Your task to perform on an android device: toggle show notifications on the lock screen Image 0: 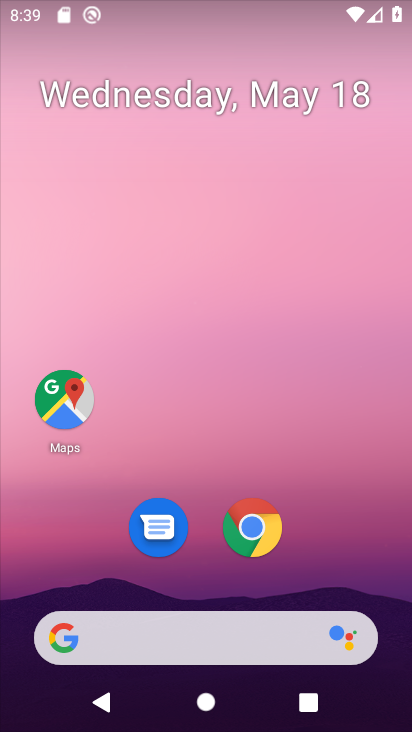
Step 0: drag from (291, 583) to (294, 6)
Your task to perform on an android device: toggle show notifications on the lock screen Image 1: 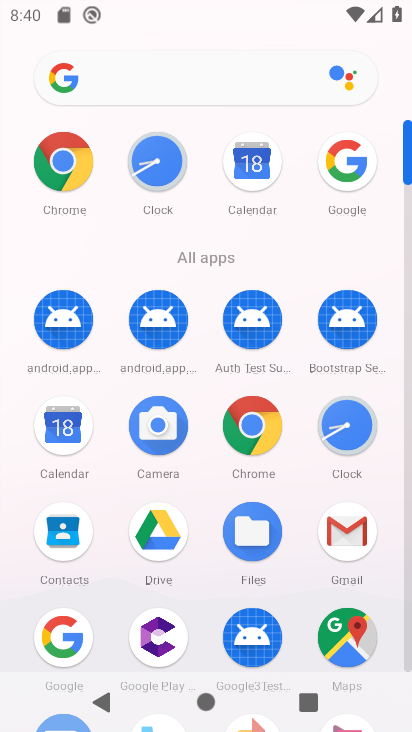
Step 1: drag from (140, 586) to (339, 0)
Your task to perform on an android device: toggle show notifications on the lock screen Image 2: 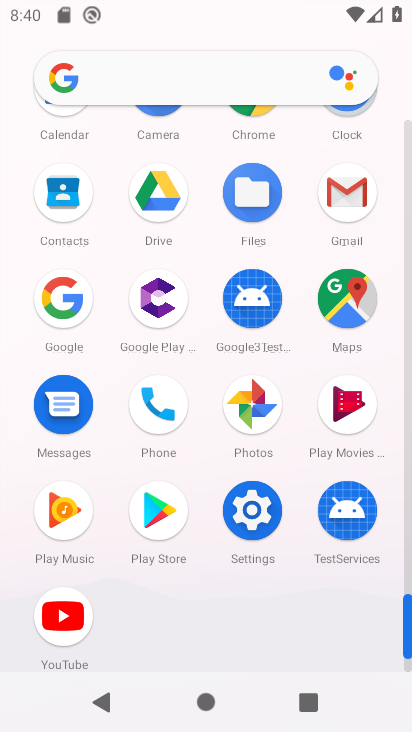
Step 2: click (340, 17)
Your task to perform on an android device: toggle show notifications on the lock screen Image 3: 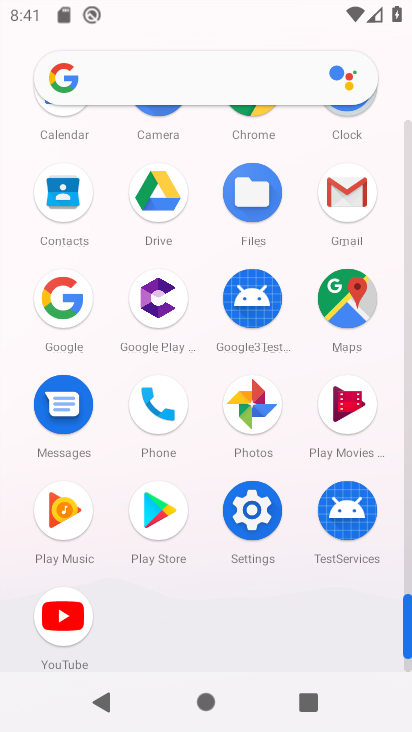
Step 3: click (241, 527)
Your task to perform on an android device: toggle show notifications on the lock screen Image 4: 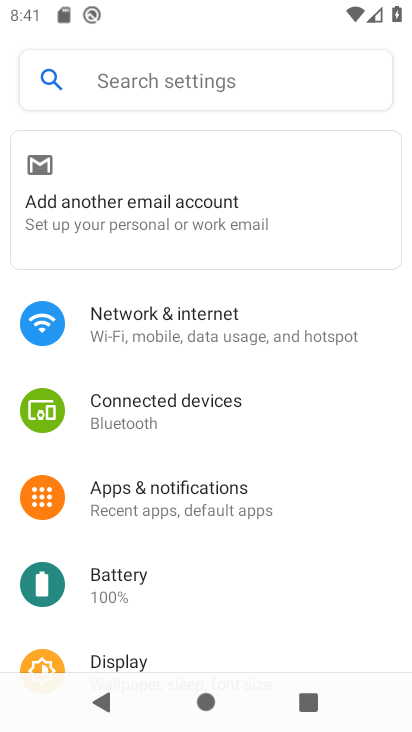
Step 4: click (164, 502)
Your task to perform on an android device: toggle show notifications on the lock screen Image 5: 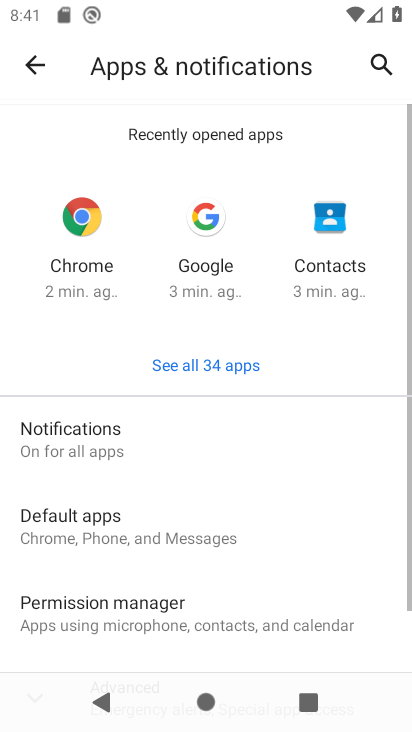
Step 5: click (74, 439)
Your task to perform on an android device: toggle show notifications on the lock screen Image 6: 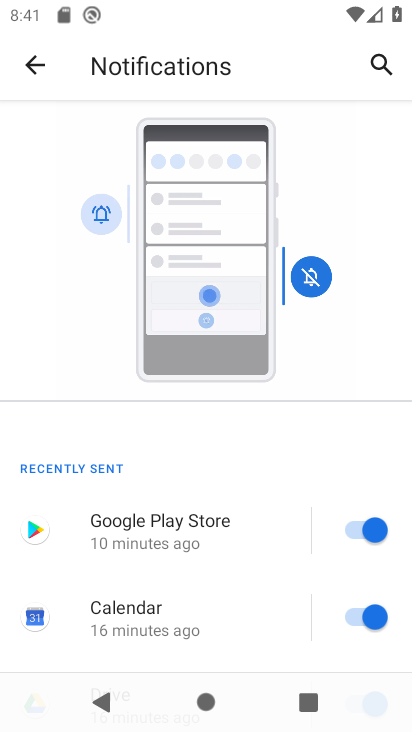
Step 6: click (185, 559)
Your task to perform on an android device: toggle show notifications on the lock screen Image 7: 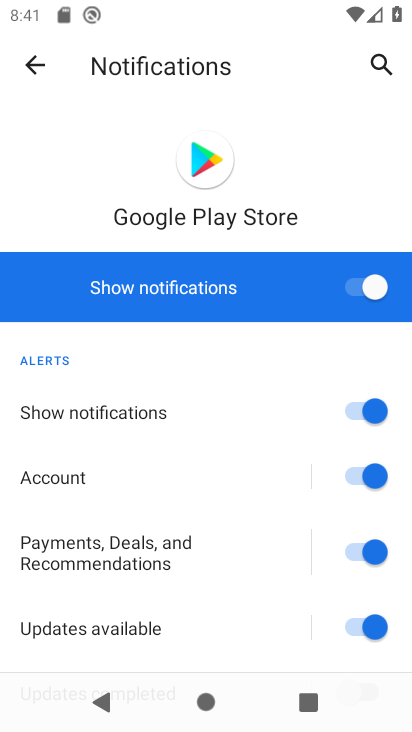
Step 7: click (38, 73)
Your task to perform on an android device: toggle show notifications on the lock screen Image 8: 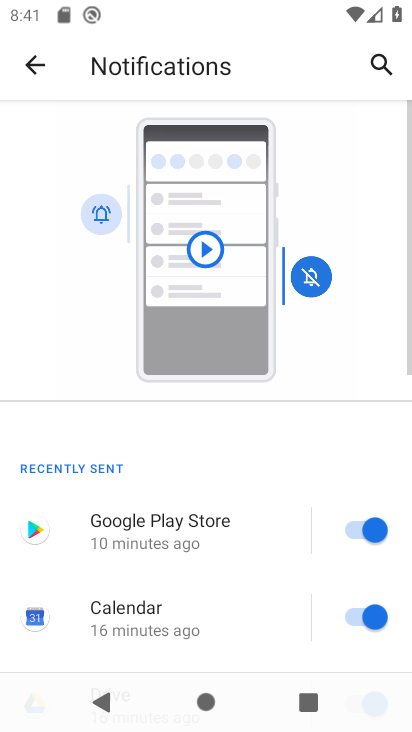
Step 8: drag from (194, 502) to (180, 147)
Your task to perform on an android device: toggle show notifications on the lock screen Image 9: 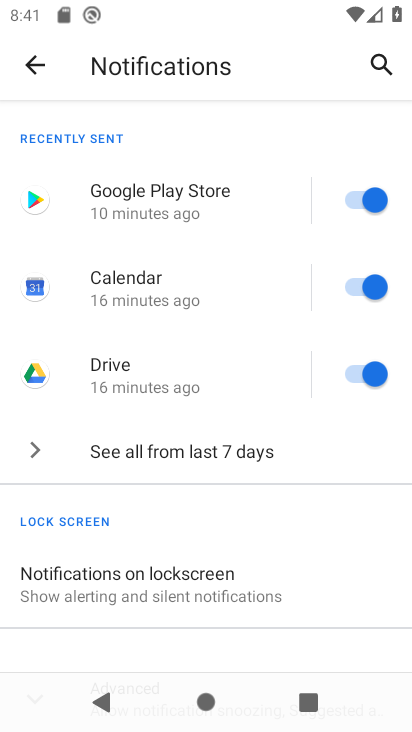
Step 9: drag from (175, 503) to (141, 146)
Your task to perform on an android device: toggle show notifications on the lock screen Image 10: 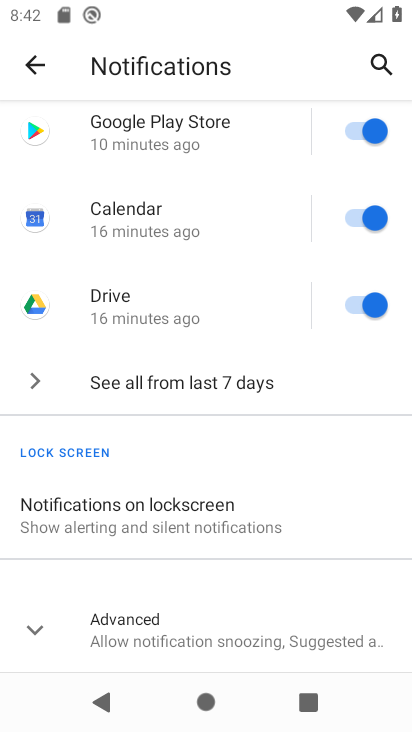
Step 10: click (120, 532)
Your task to perform on an android device: toggle show notifications on the lock screen Image 11: 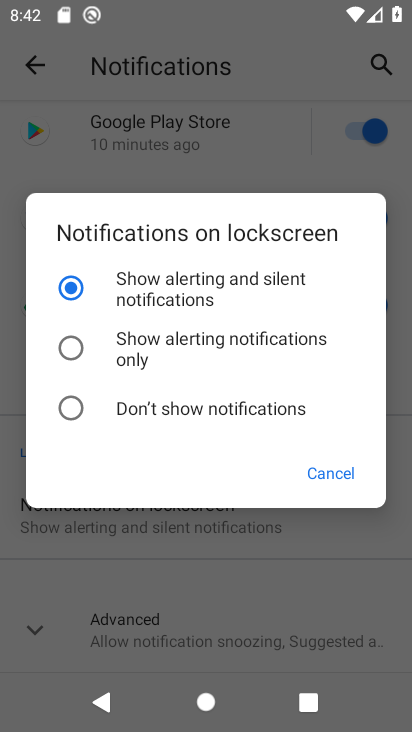
Step 11: click (74, 403)
Your task to perform on an android device: toggle show notifications on the lock screen Image 12: 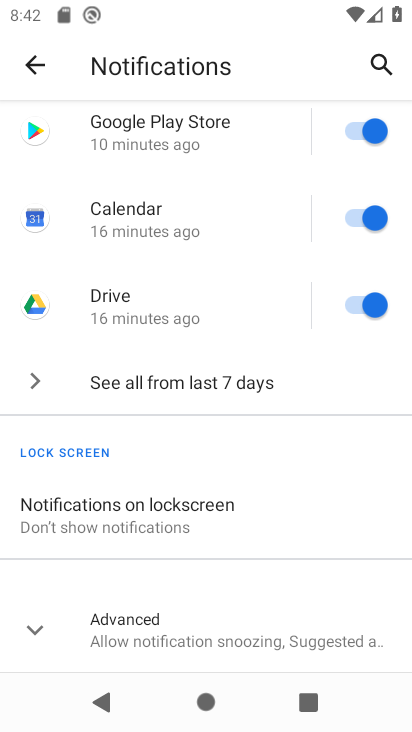
Step 12: task complete